Your task to perform on an android device: turn notification dots off Image 0: 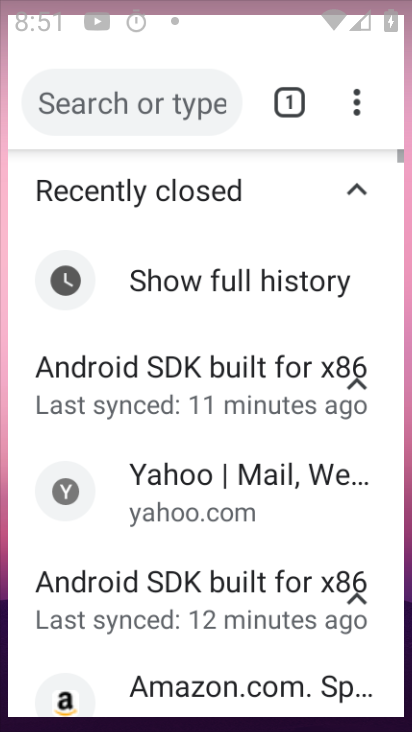
Step 0: press home button
Your task to perform on an android device: turn notification dots off Image 1: 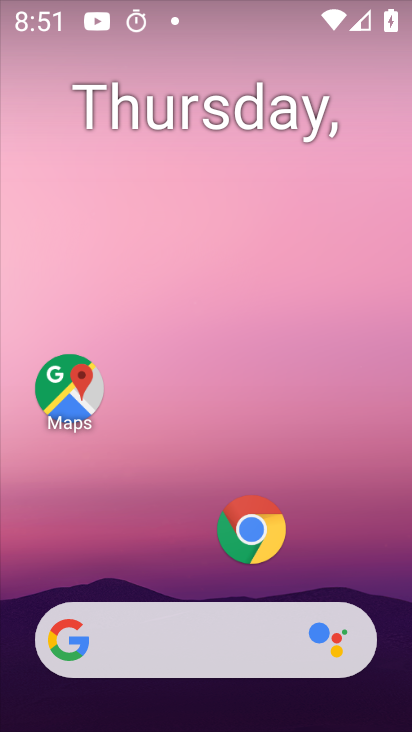
Step 1: drag from (200, 574) to (215, 3)
Your task to perform on an android device: turn notification dots off Image 2: 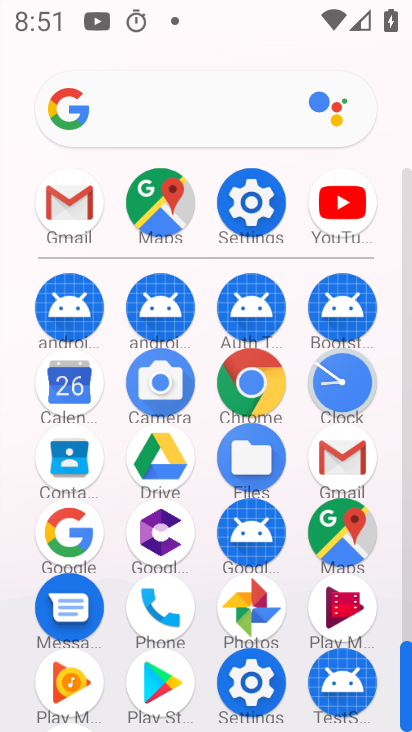
Step 2: click (249, 197)
Your task to perform on an android device: turn notification dots off Image 3: 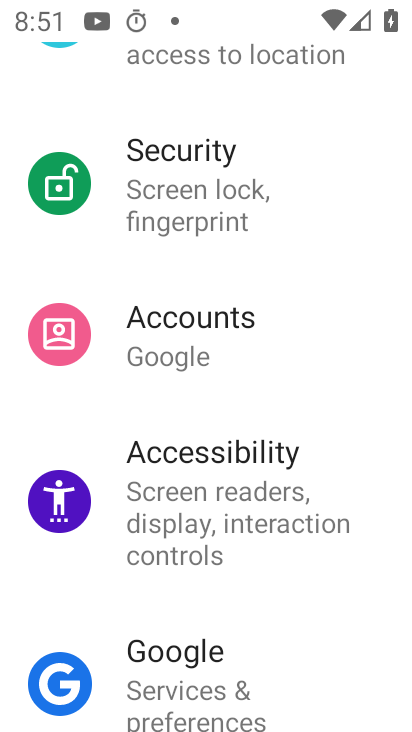
Step 3: drag from (100, 123) to (116, 541)
Your task to perform on an android device: turn notification dots off Image 4: 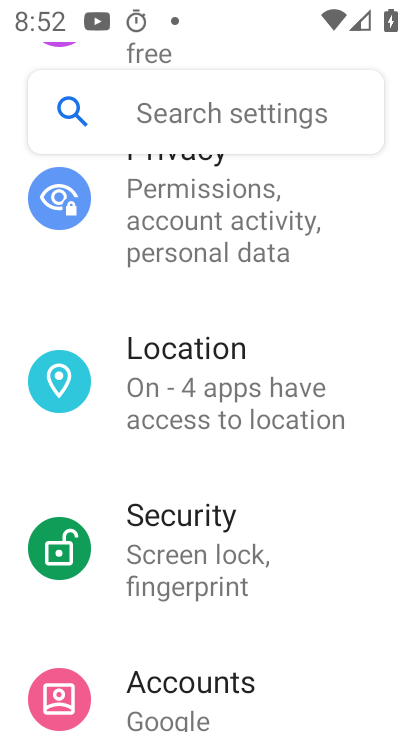
Step 4: drag from (111, 181) to (116, 679)
Your task to perform on an android device: turn notification dots off Image 5: 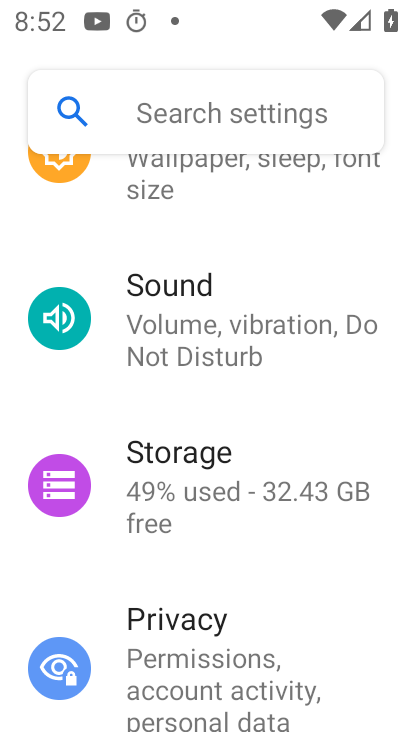
Step 5: drag from (106, 190) to (117, 687)
Your task to perform on an android device: turn notification dots off Image 6: 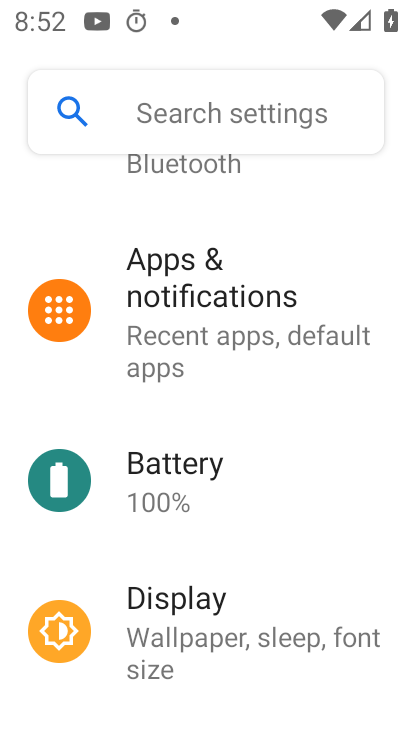
Step 6: click (115, 300)
Your task to perform on an android device: turn notification dots off Image 7: 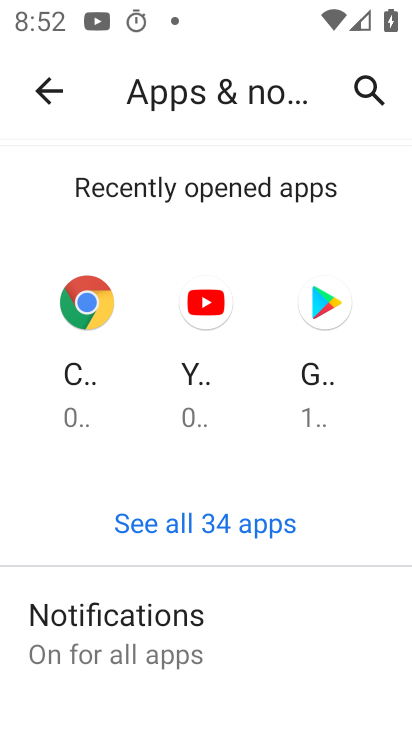
Step 7: click (229, 641)
Your task to perform on an android device: turn notification dots off Image 8: 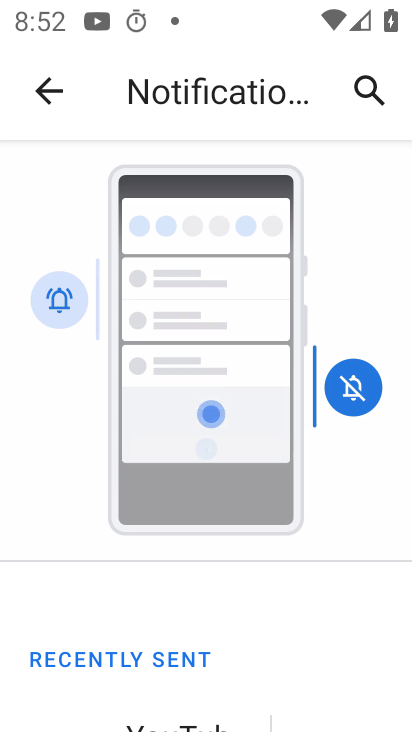
Step 8: drag from (243, 649) to (245, 116)
Your task to perform on an android device: turn notification dots off Image 9: 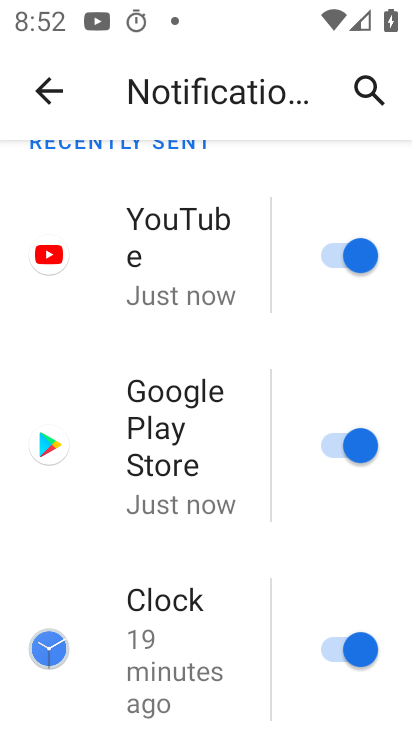
Step 9: drag from (246, 666) to (256, 122)
Your task to perform on an android device: turn notification dots off Image 10: 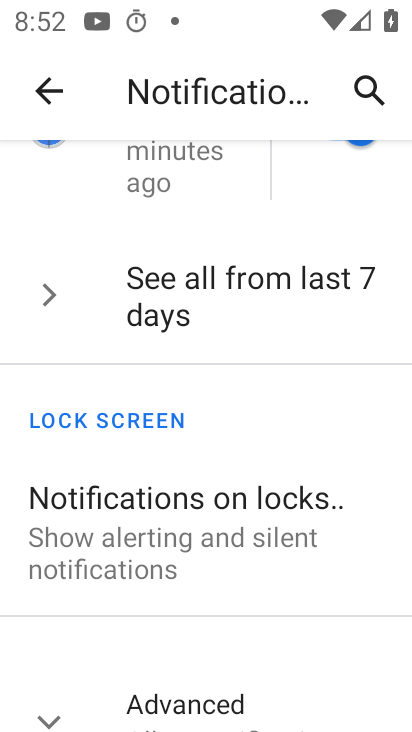
Step 10: drag from (197, 643) to (217, 234)
Your task to perform on an android device: turn notification dots off Image 11: 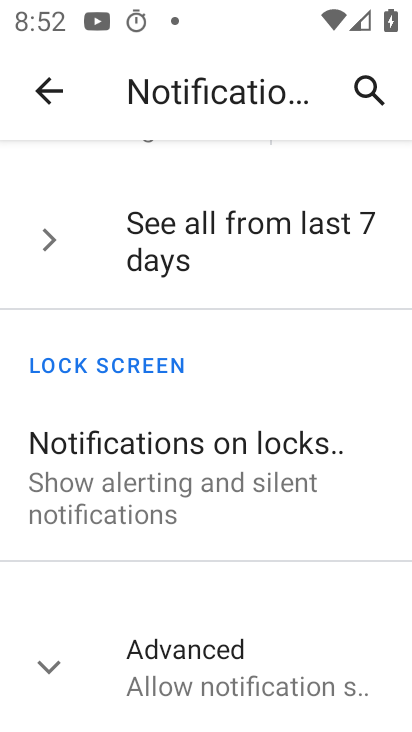
Step 11: click (49, 656)
Your task to perform on an android device: turn notification dots off Image 12: 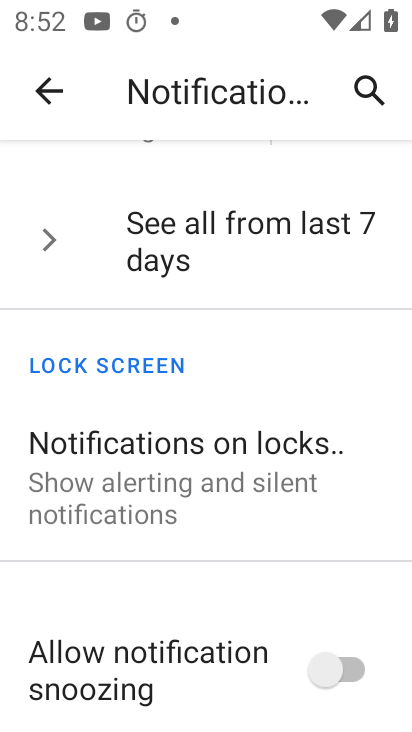
Step 12: task complete